Your task to perform on an android device: read, delete, or share a saved page in the chrome app Image 0: 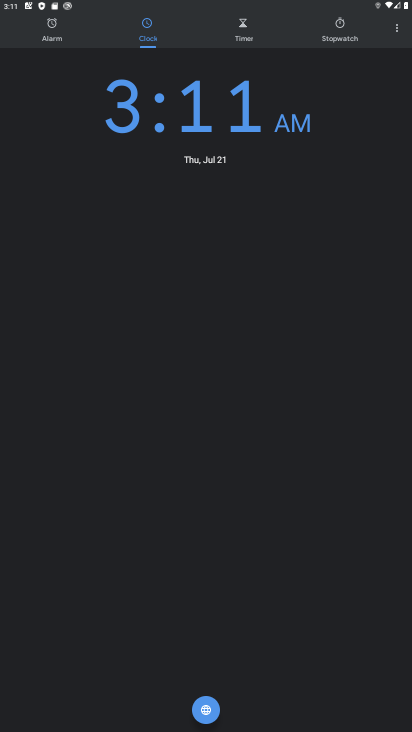
Step 0: press home button
Your task to perform on an android device: read, delete, or share a saved page in the chrome app Image 1: 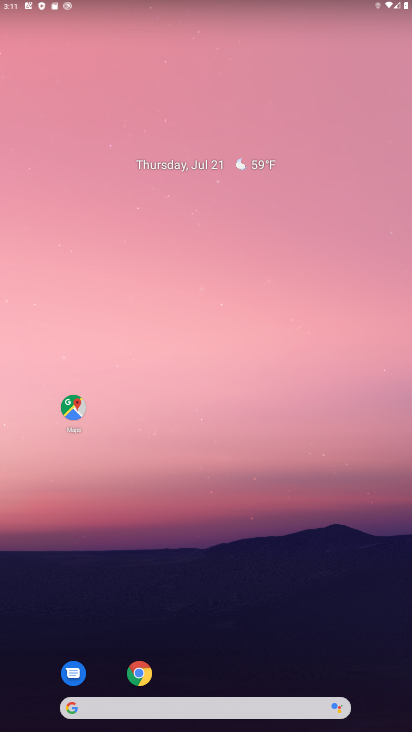
Step 1: drag from (327, 651) to (214, 145)
Your task to perform on an android device: read, delete, or share a saved page in the chrome app Image 2: 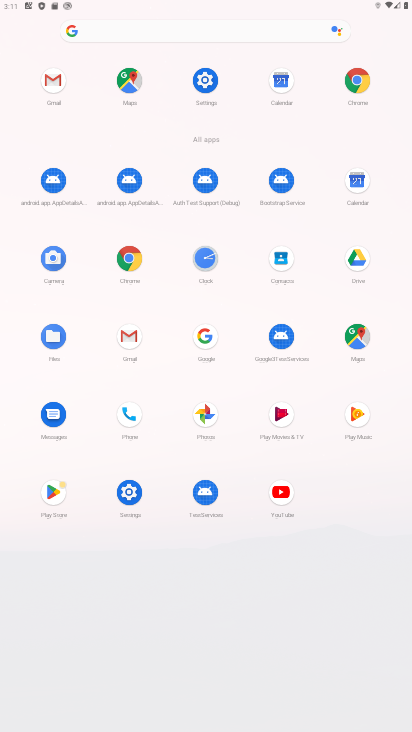
Step 2: click (362, 77)
Your task to perform on an android device: read, delete, or share a saved page in the chrome app Image 3: 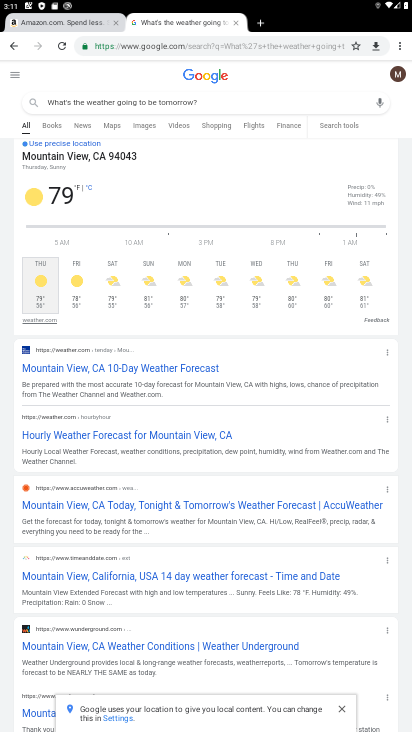
Step 3: click (400, 41)
Your task to perform on an android device: read, delete, or share a saved page in the chrome app Image 4: 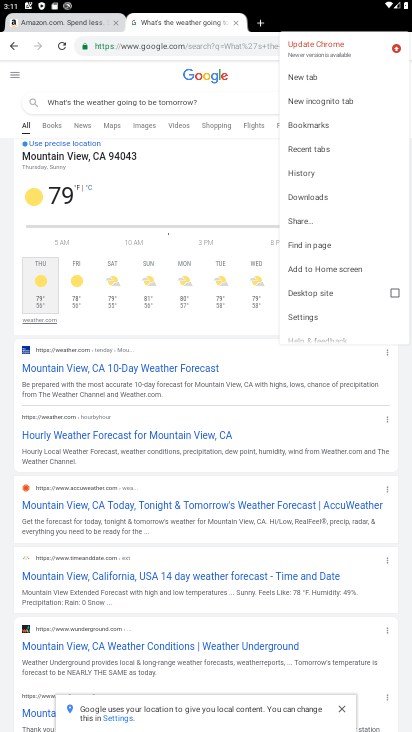
Step 4: click (333, 198)
Your task to perform on an android device: read, delete, or share a saved page in the chrome app Image 5: 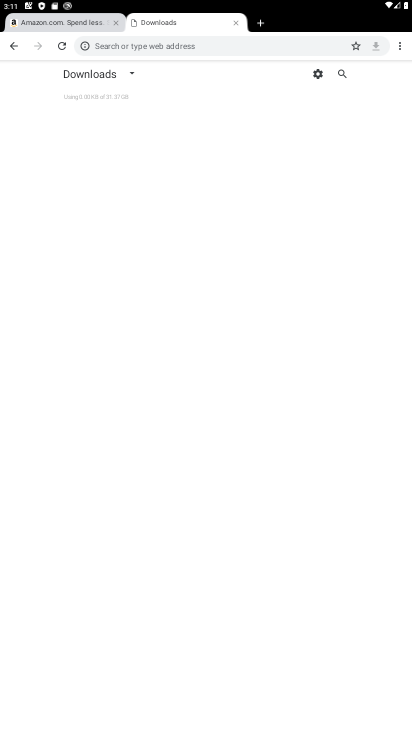
Step 5: click (106, 78)
Your task to perform on an android device: read, delete, or share a saved page in the chrome app Image 6: 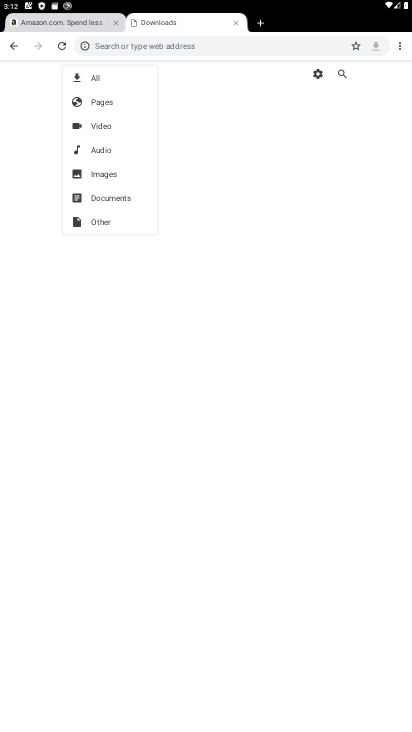
Step 6: click (104, 99)
Your task to perform on an android device: read, delete, or share a saved page in the chrome app Image 7: 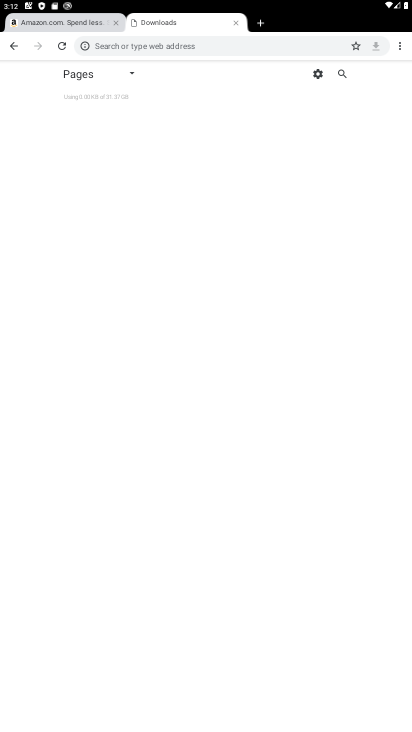
Step 7: task complete